Your task to perform on an android device: turn off location history Image 0: 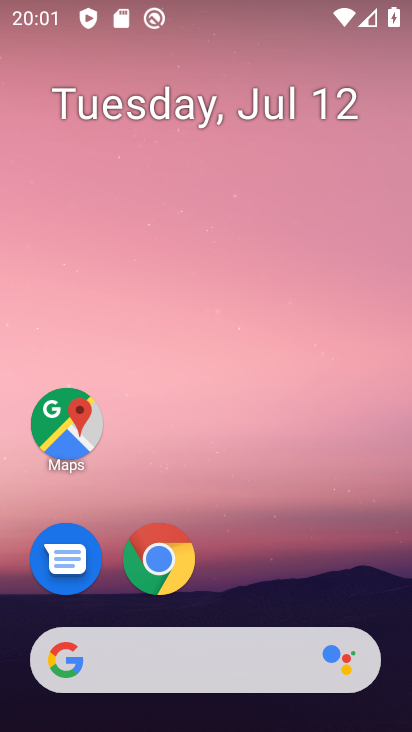
Step 0: drag from (354, 585) to (372, 84)
Your task to perform on an android device: turn off location history Image 1: 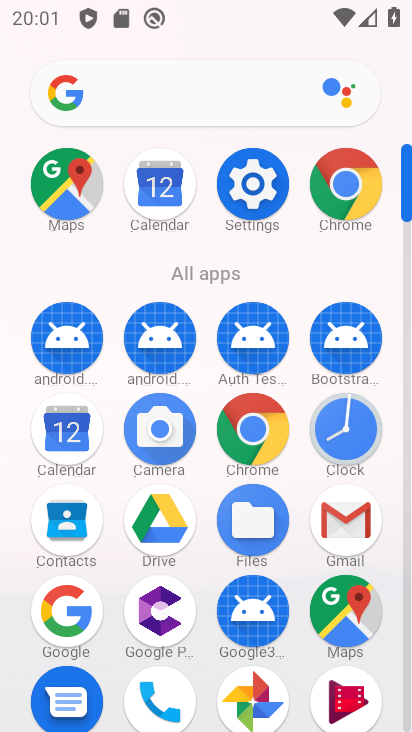
Step 1: click (262, 193)
Your task to perform on an android device: turn off location history Image 2: 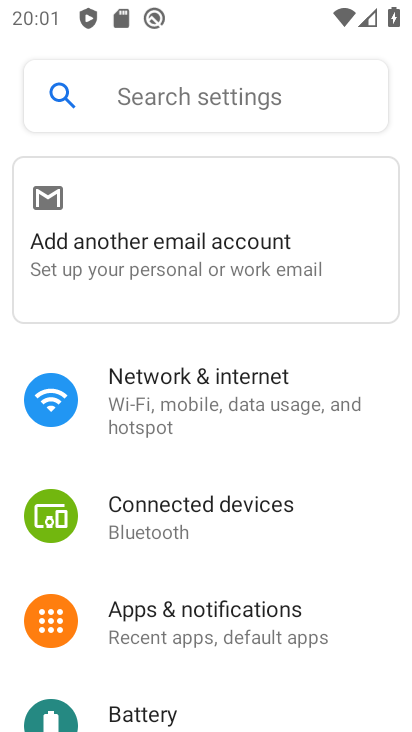
Step 2: drag from (334, 466) to (341, 379)
Your task to perform on an android device: turn off location history Image 3: 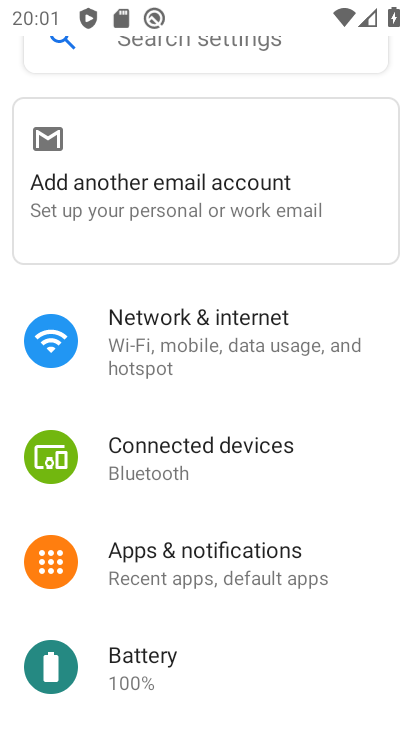
Step 3: drag from (355, 473) to (355, 361)
Your task to perform on an android device: turn off location history Image 4: 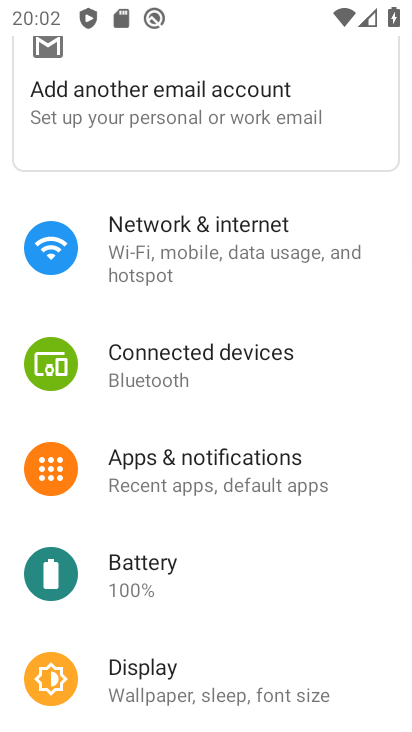
Step 4: drag from (360, 501) to (361, 391)
Your task to perform on an android device: turn off location history Image 5: 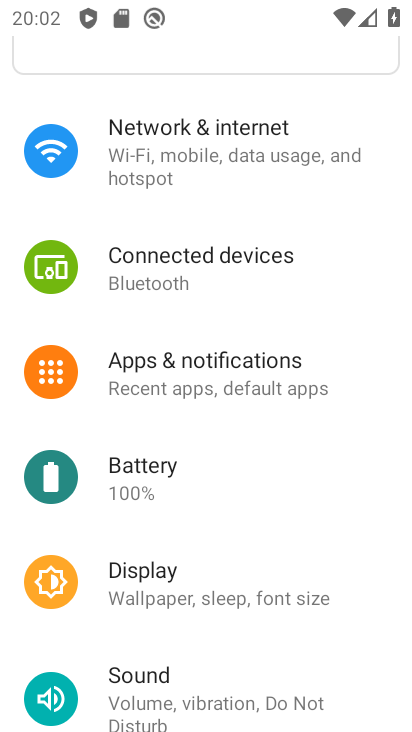
Step 5: drag from (365, 499) to (365, 403)
Your task to perform on an android device: turn off location history Image 6: 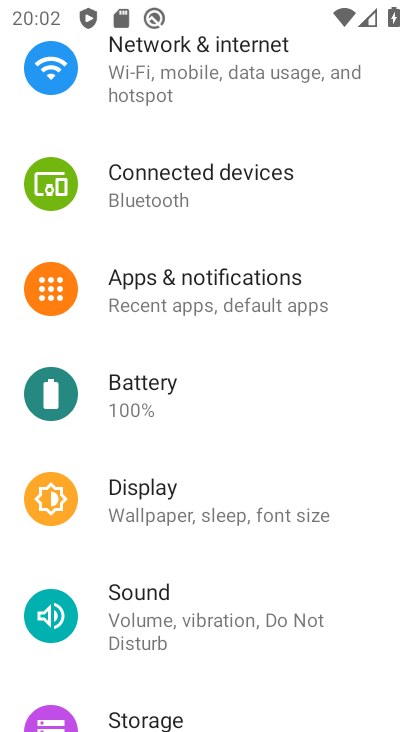
Step 6: drag from (357, 506) to (355, 407)
Your task to perform on an android device: turn off location history Image 7: 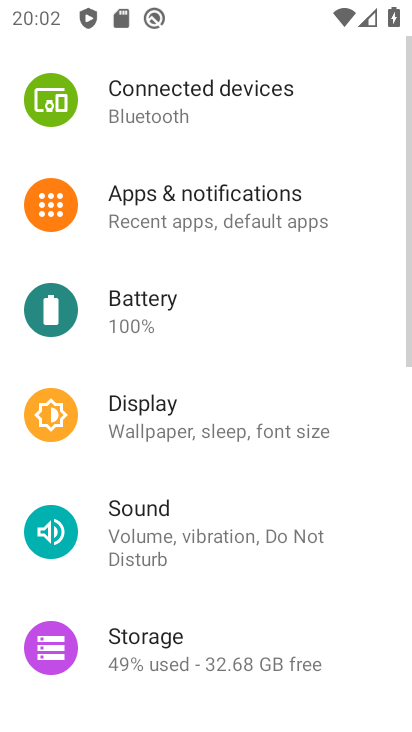
Step 7: drag from (351, 507) to (351, 399)
Your task to perform on an android device: turn off location history Image 8: 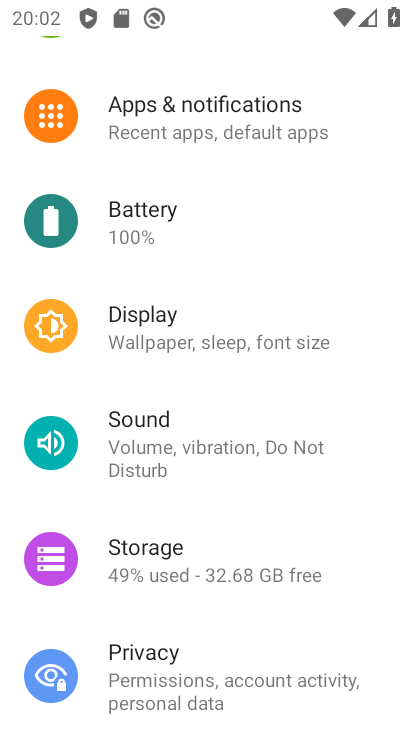
Step 8: drag from (350, 486) to (351, 395)
Your task to perform on an android device: turn off location history Image 9: 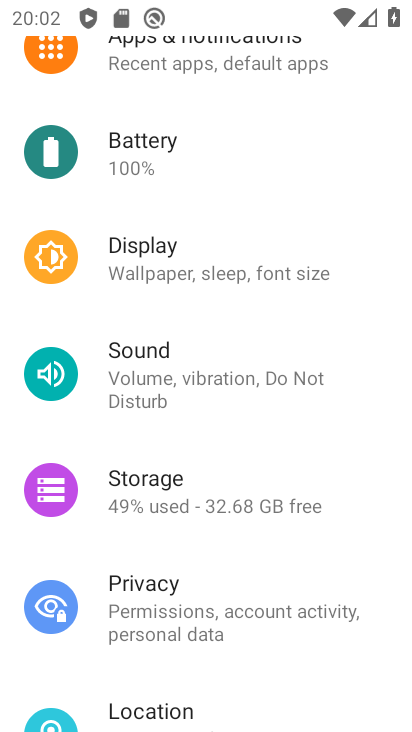
Step 9: drag from (352, 495) to (354, 383)
Your task to perform on an android device: turn off location history Image 10: 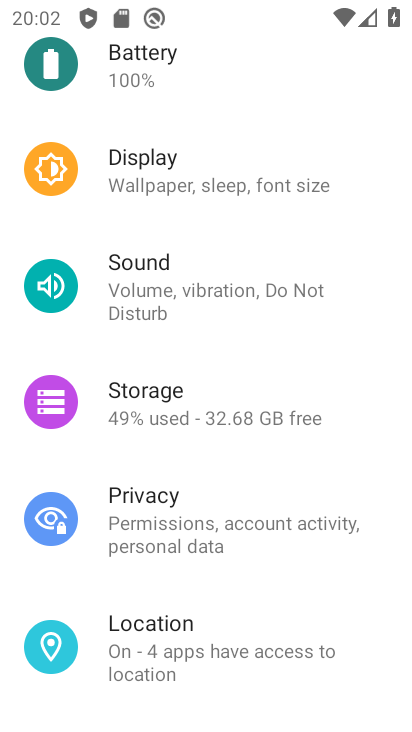
Step 10: drag from (372, 534) to (372, 407)
Your task to perform on an android device: turn off location history Image 11: 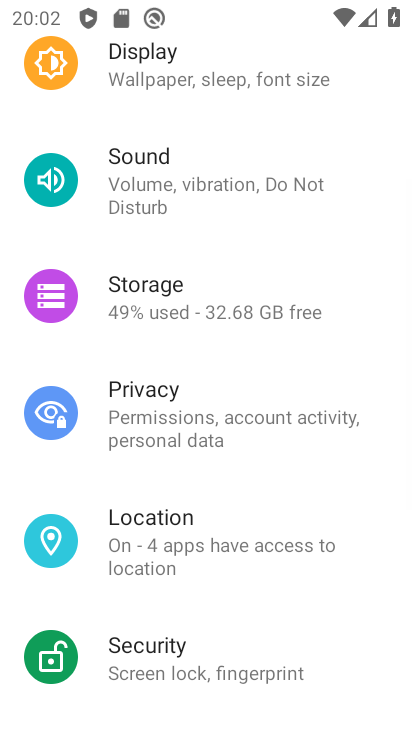
Step 11: drag from (371, 501) to (374, 380)
Your task to perform on an android device: turn off location history Image 12: 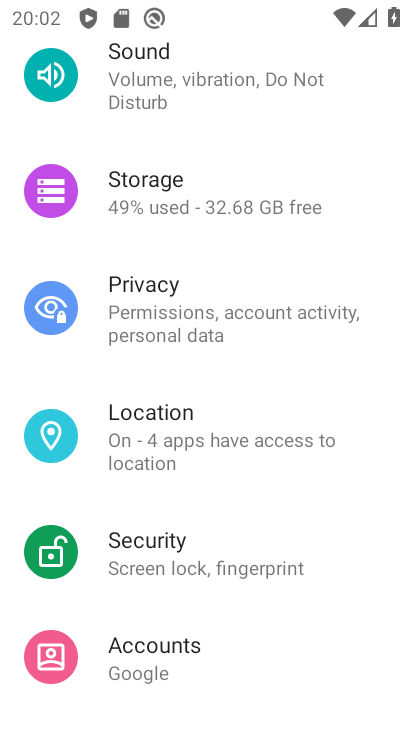
Step 12: click (341, 441)
Your task to perform on an android device: turn off location history Image 13: 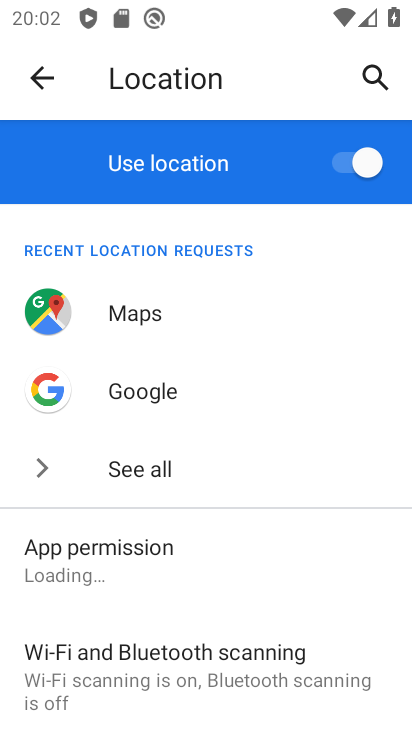
Step 13: drag from (346, 543) to (347, 421)
Your task to perform on an android device: turn off location history Image 14: 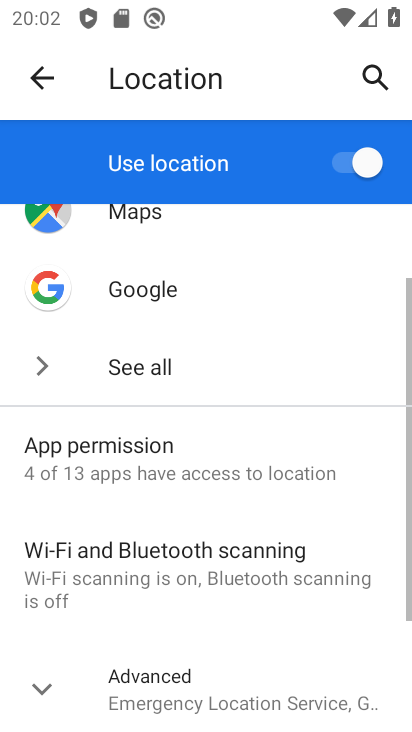
Step 14: drag from (345, 505) to (346, 346)
Your task to perform on an android device: turn off location history Image 15: 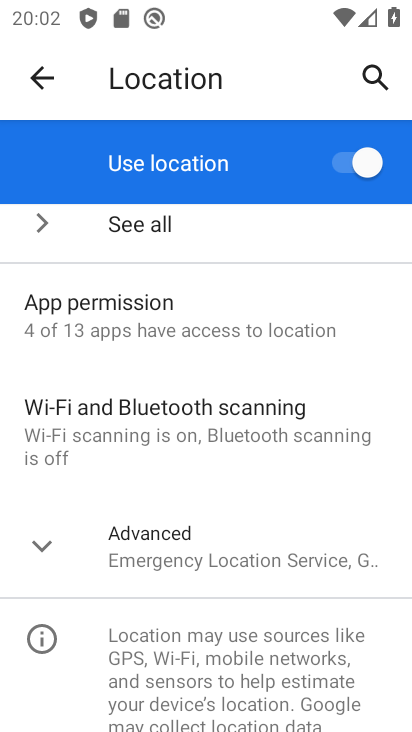
Step 15: drag from (355, 513) to (358, 363)
Your task to perform on an android device: turn off location history Image 16: 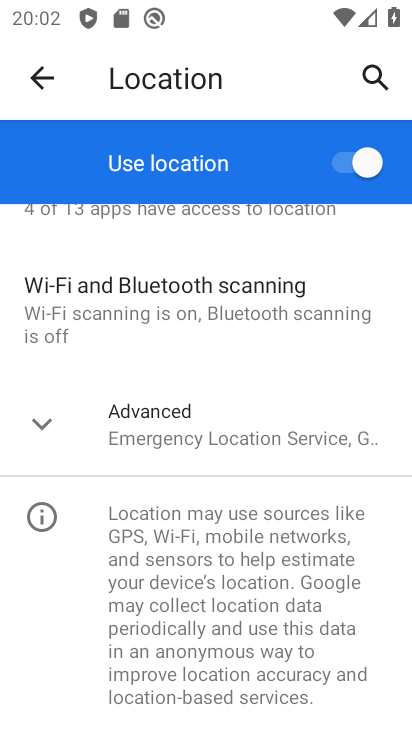
Step 16: click (338, 439)
Your task to perform on an android device: turn off location history Image 17: 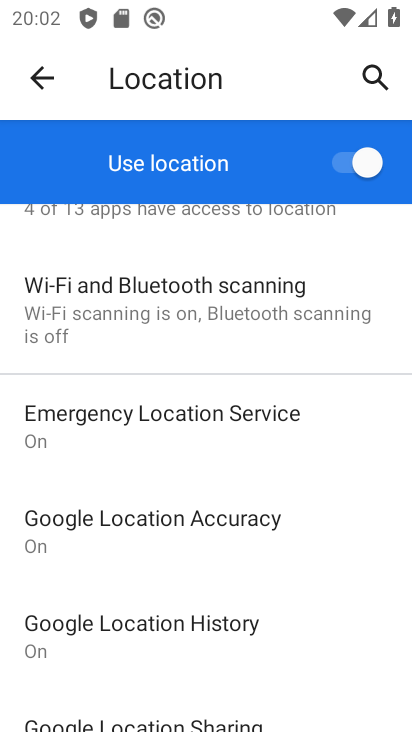
Step 17: drag from (337, 524) to (349, 380)
Your task to perform on an android device: turn off location history Image 18: 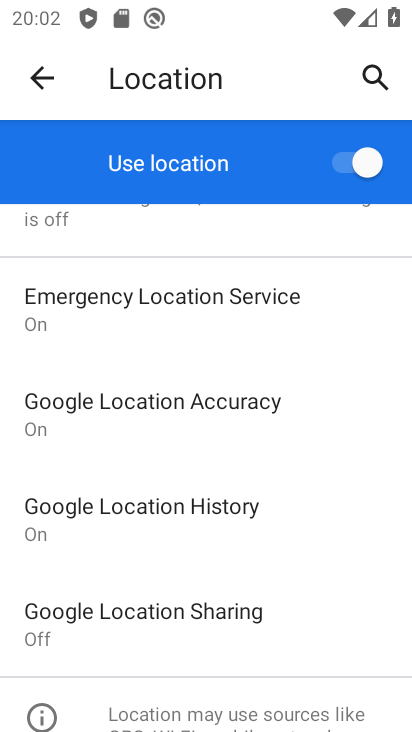
Step 18: drag from (334, 528) to (334, 402)
Your task to perform on an android device: turn off location history Image 19: 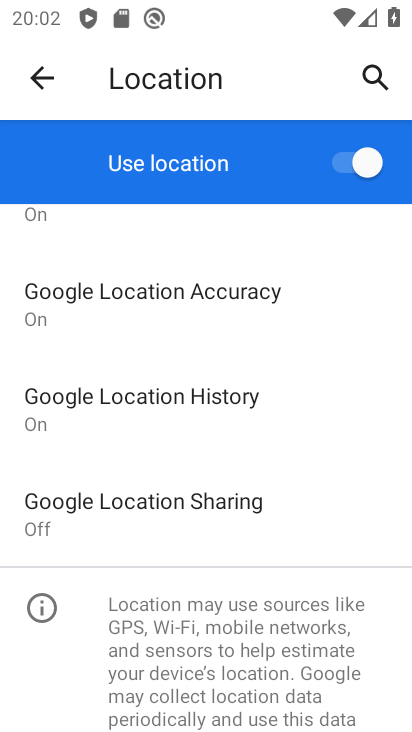
Step 19: click (257, 405)
Your task to perform on an android device: turn off location history Image 20: 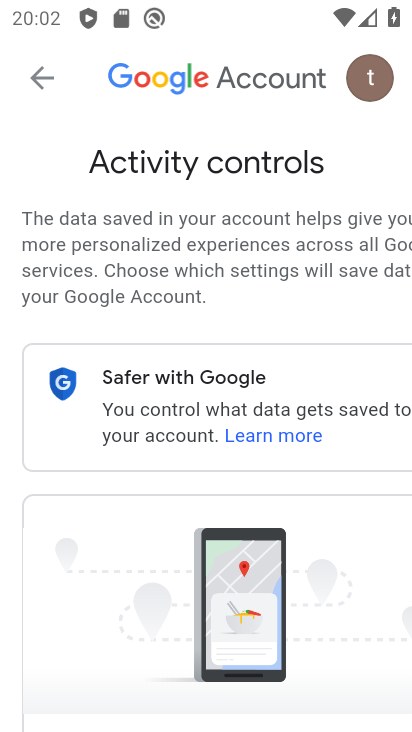
Step 20: drag from (307, 557) to (308, 380)
Your task to perform on an android device: turn off location history Image 21: 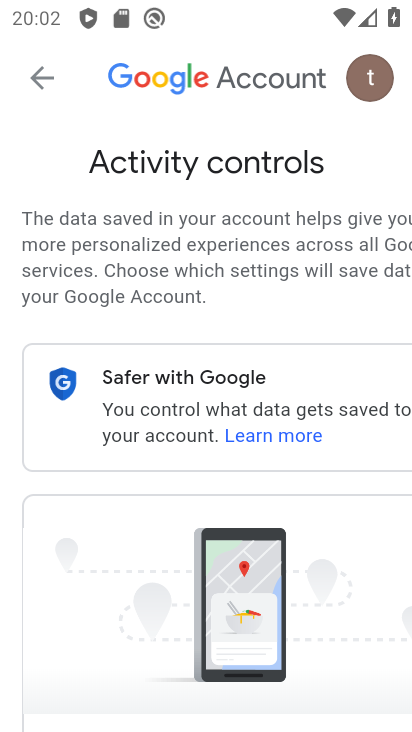
Step 21: drag from (307, 571) to (315, 367)
Your task to perform on an android device: turn off location history Image 22: 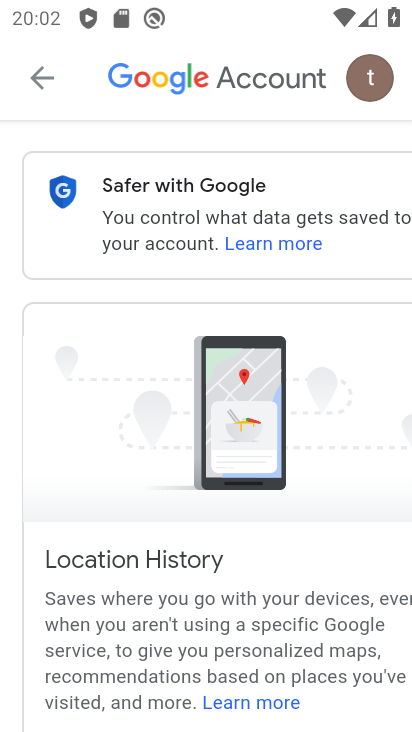
Step 22: drag from (282, 580) to (293, 323)
Your task to perform on an android device: turn off location history Image 23: 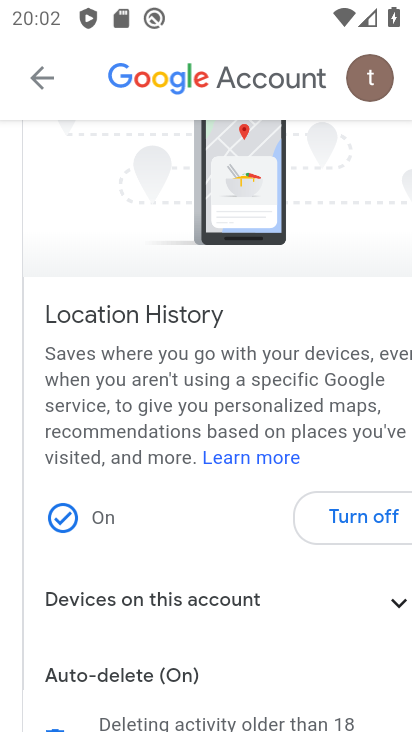
Step 23: click (352, 516)
Your task to perform on an android device: turn off location history Image 24: 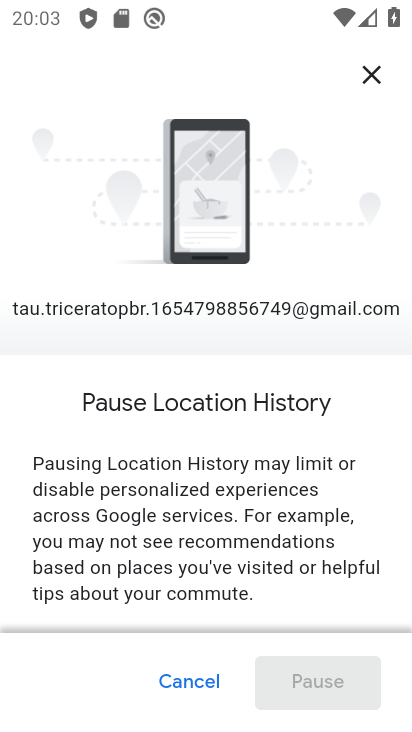
Step 24: drag from (228, 496) to (232, 348)
Your task to perform on an android device: turn off location history Image 25: 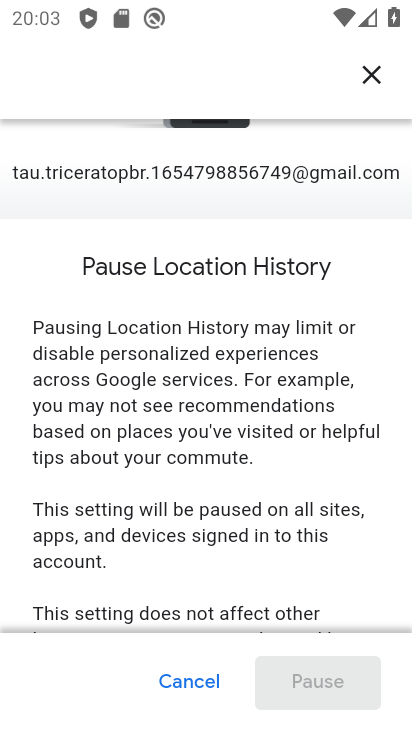
Step 25: drag from (231, 515) to (229, 360)
Your task to perform on an android device: turn off location history Image 26: 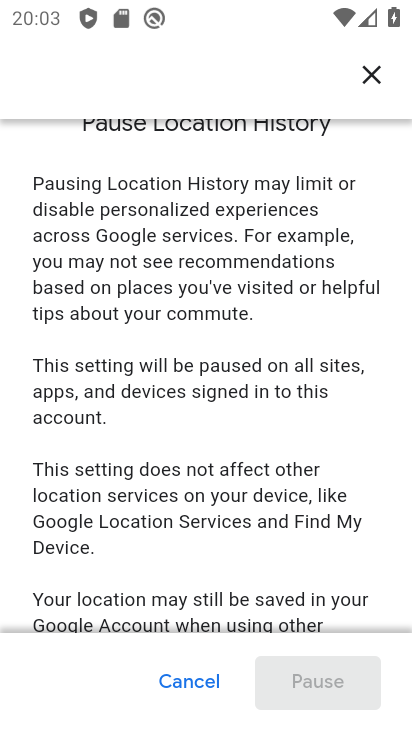
Step 26: drag from (236, 534) to (242, 385)
Your task to perform on an android device: turn off location history Image 27: 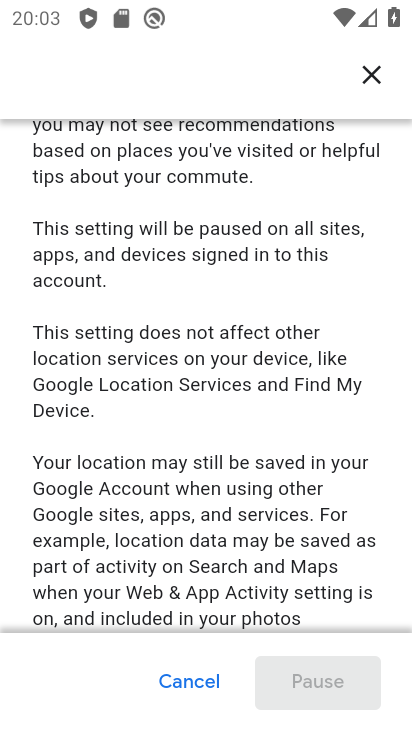
Step 27: drag from (236, 532) to (246, 329)
Your task to perform on an android device: turn off location history Image 28: 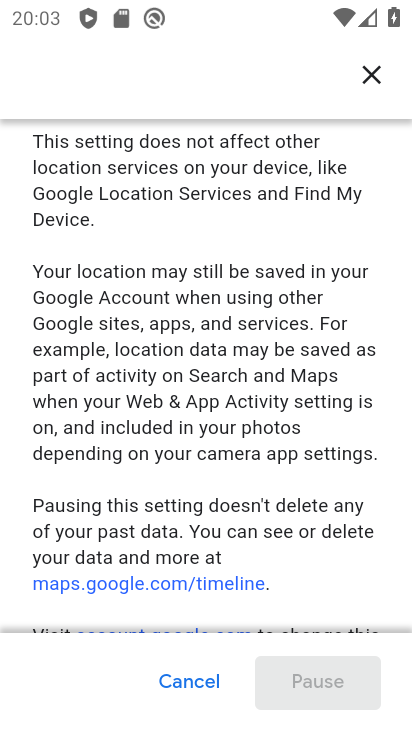
Step 28: drag from (247, 562) to (254, 396)
Your task to perform on an android device: turn off location history Image 29: 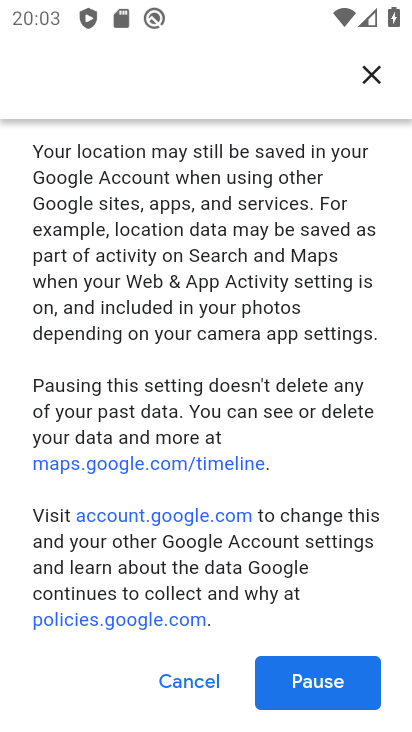
Step 29: click (320, 689)
Your task to perform on an android device: turn off location history Image 30: 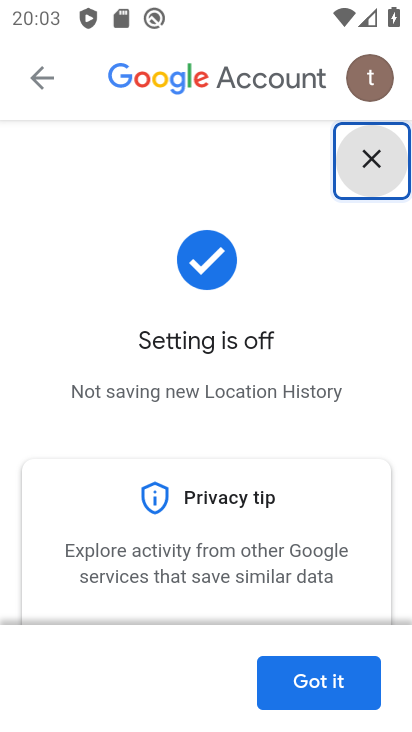
Step 30: task complete